Your task to perform on an android device: turn on data saver in the chrome app Image 0: 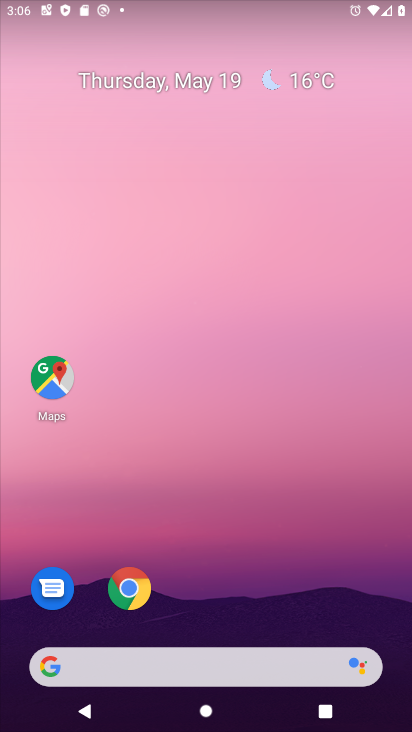
Step 0: click (106, 602)
Your task to perform on an android device: turn on data saver in the chrome app Image 1: 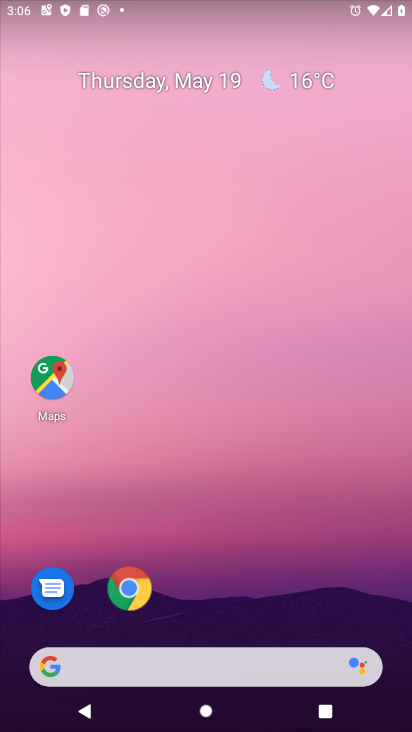
Step 1: click (127, 590)
Your task to perform on an android device: turn on data saver in the chrome app Image 2: 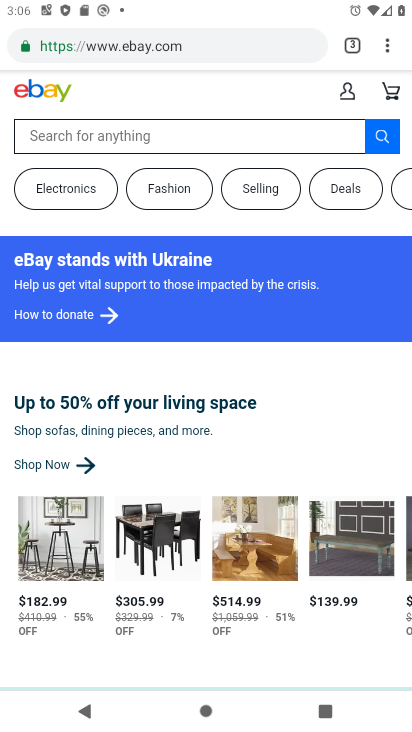
Step 2: click (386, 45)
Your task to perform on an android device: turn on data saver in the chrome app Image 3: 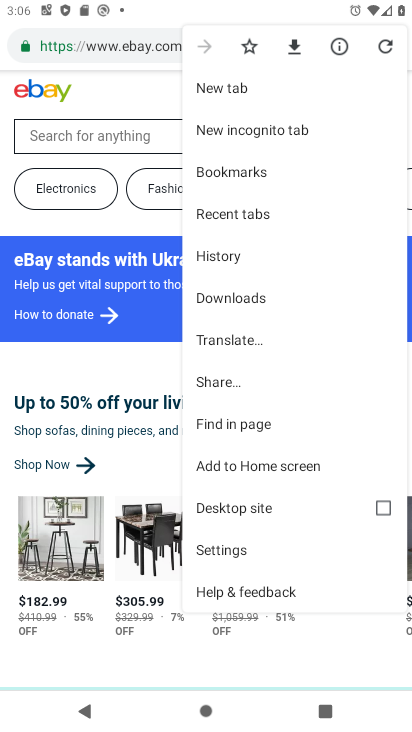
Step 3: click (247, 553)
Your task to perform on an android device: turn on data saver in the chrome app Image 4: 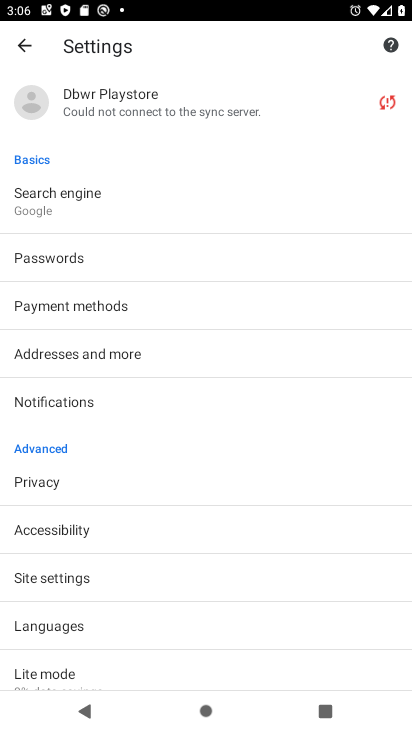
Step 4: drag from (173, 646) to (179, 222)
Your task to perform on an android device: turn on data saver in the chrome app Image 5: 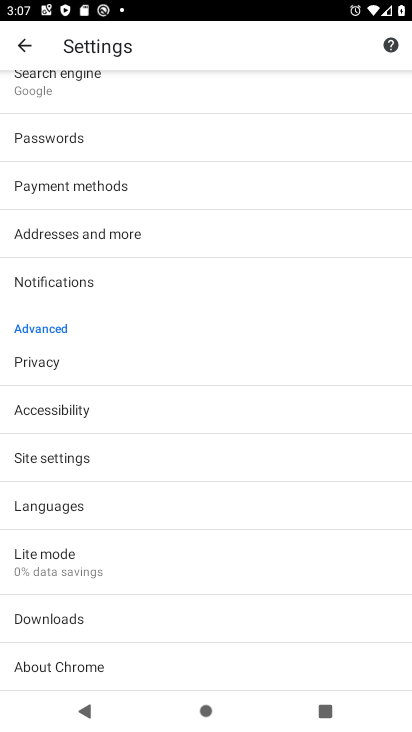
Step 5: click (108, 545)
Your task to perform on an android device: turn on data saver in the chrome app Image 6: 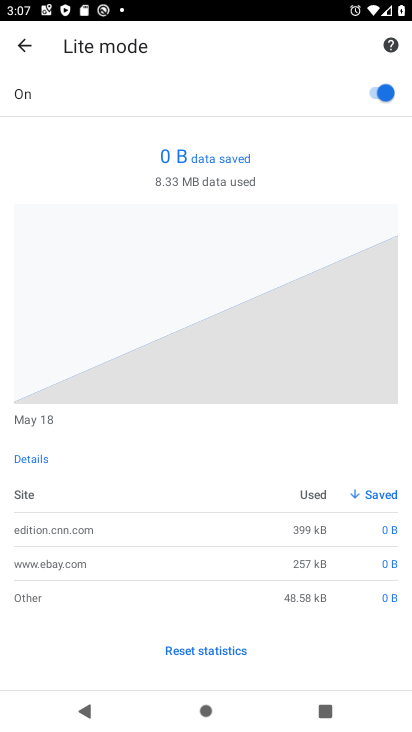
Step 6: task complete